Your task to perform on an android device: open app "Pandora - Music & Podcasts" (install if not already installed) Image 0: 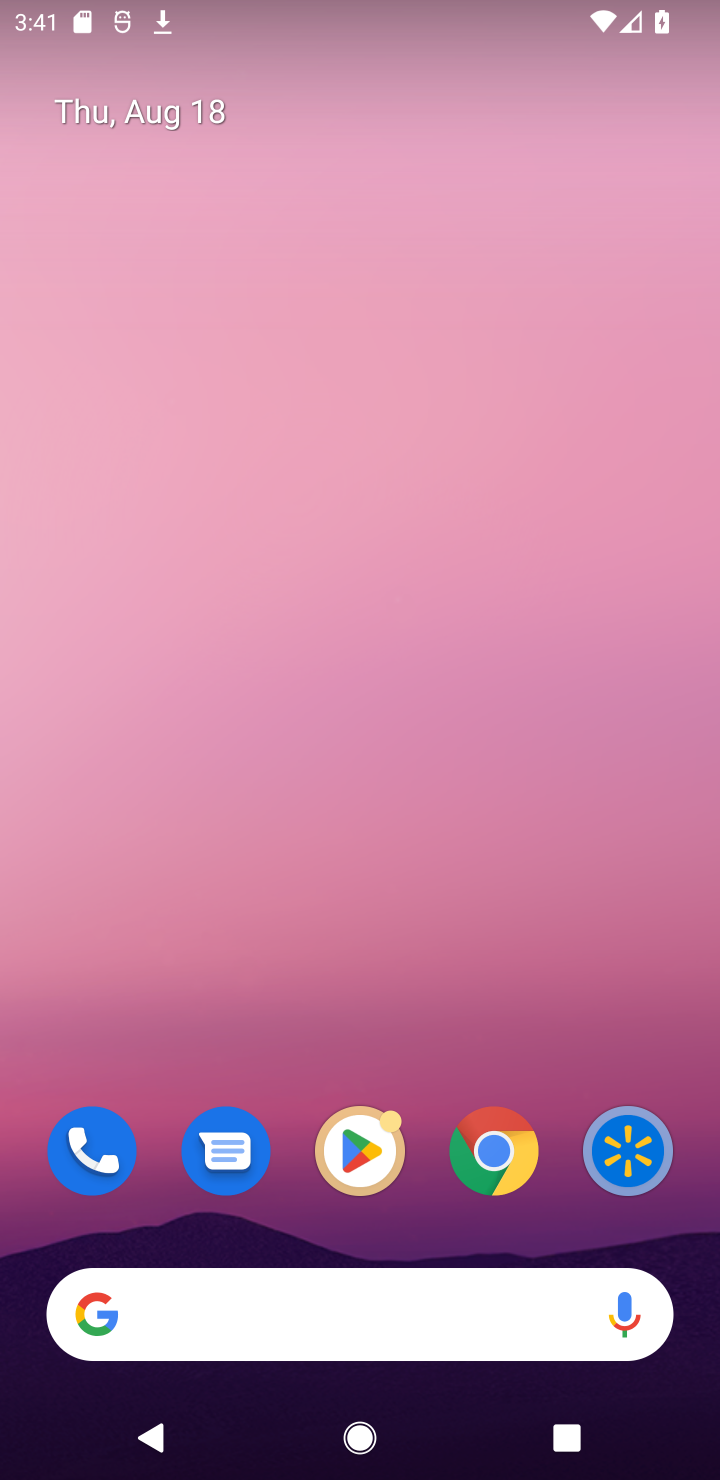
Step 0: click (354, 1123)
Your task to perform on an android device: open app "Pandora - Music & Podcasts" (install if not already installed) Image 1: 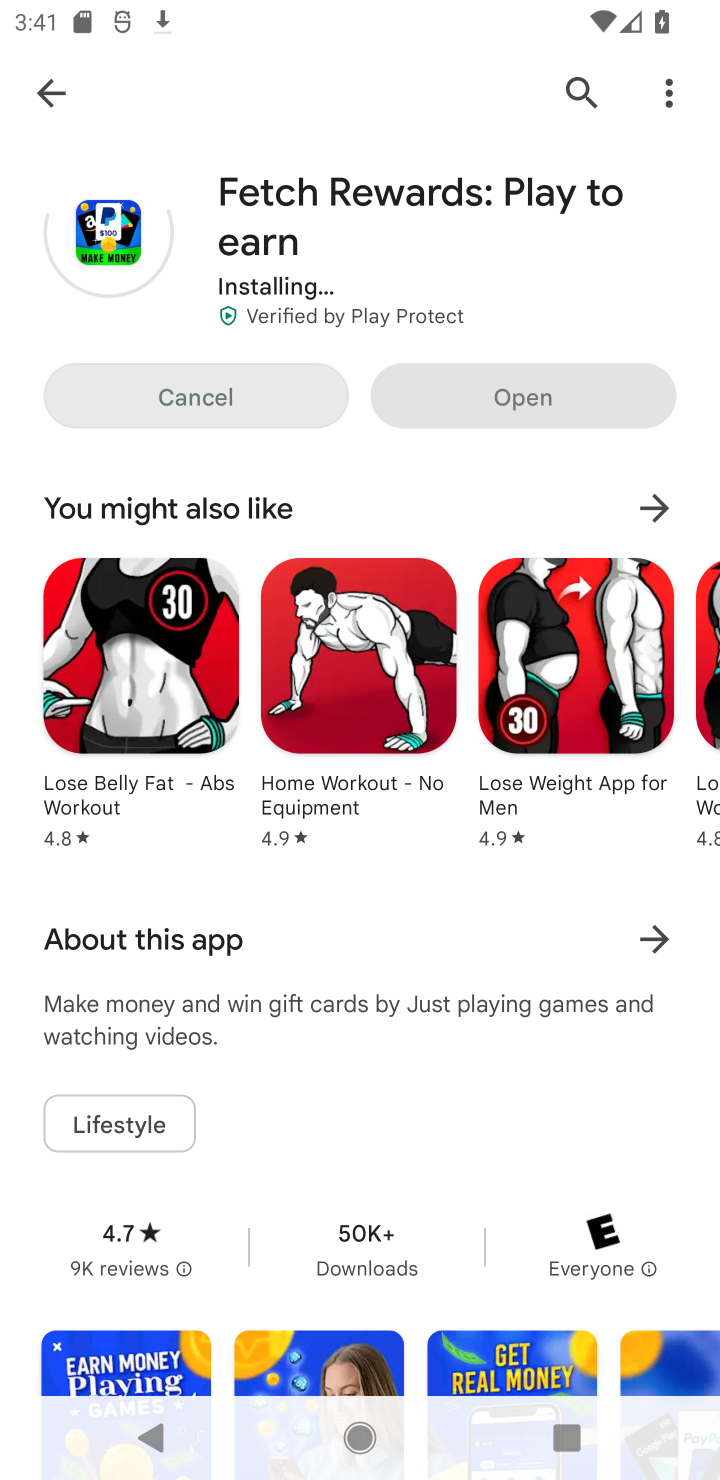
Step 1: click (591, 100)
Your task to perform on an android device: open app "Pandora - Music & Podcasts" (install if not already installed) Image 2: 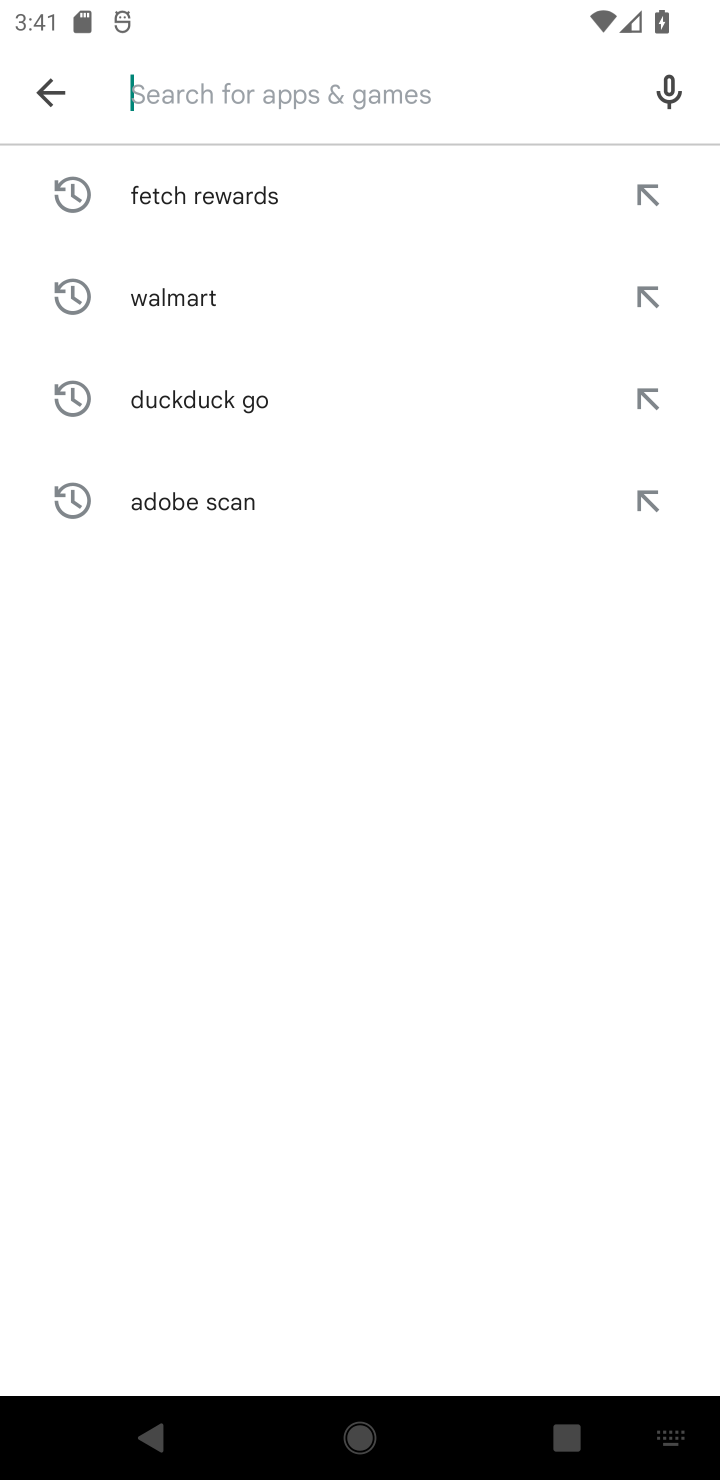
Step 2: type "pandora"
Your task to perform on an android device: open app "Pandora - Music & Podcasts" (install if not already installed) Image 3: 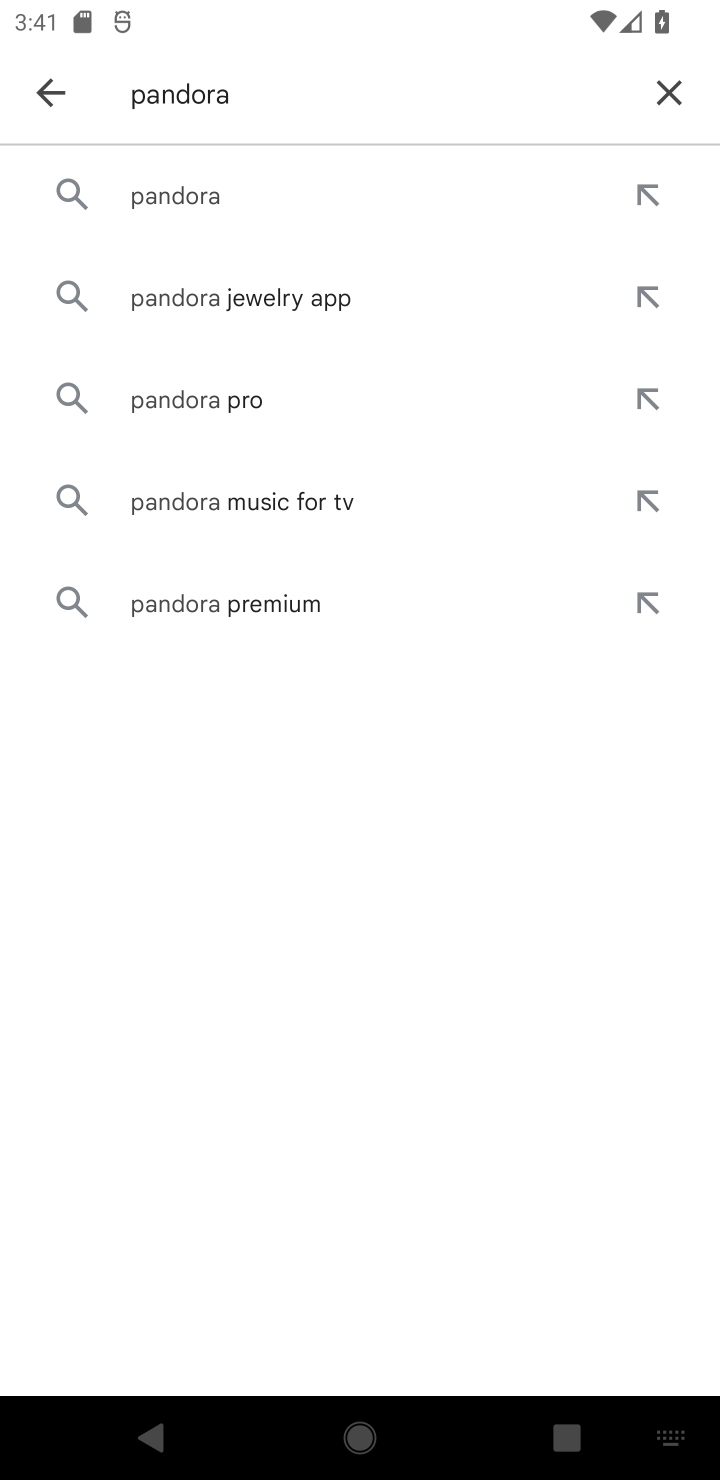
Step 3: click (446, 185)
Your task to perform on an android device: open app "Pandora - Music & Podcasts" (install if not already installed) Image 4: 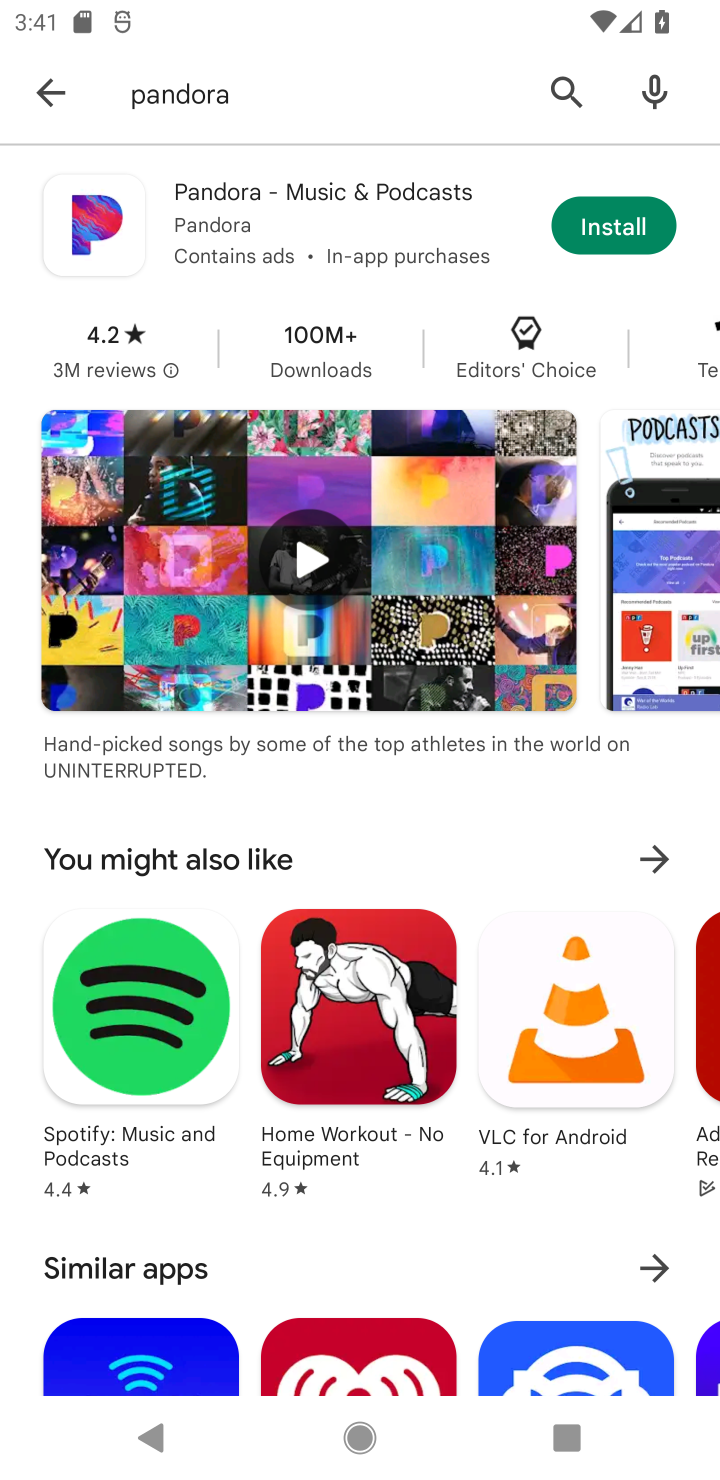
Step 4: click (639, 208)
Your task to perform on an android device: open app "Pandora - Music & Podcasts" (install if not already installed) Image 5: 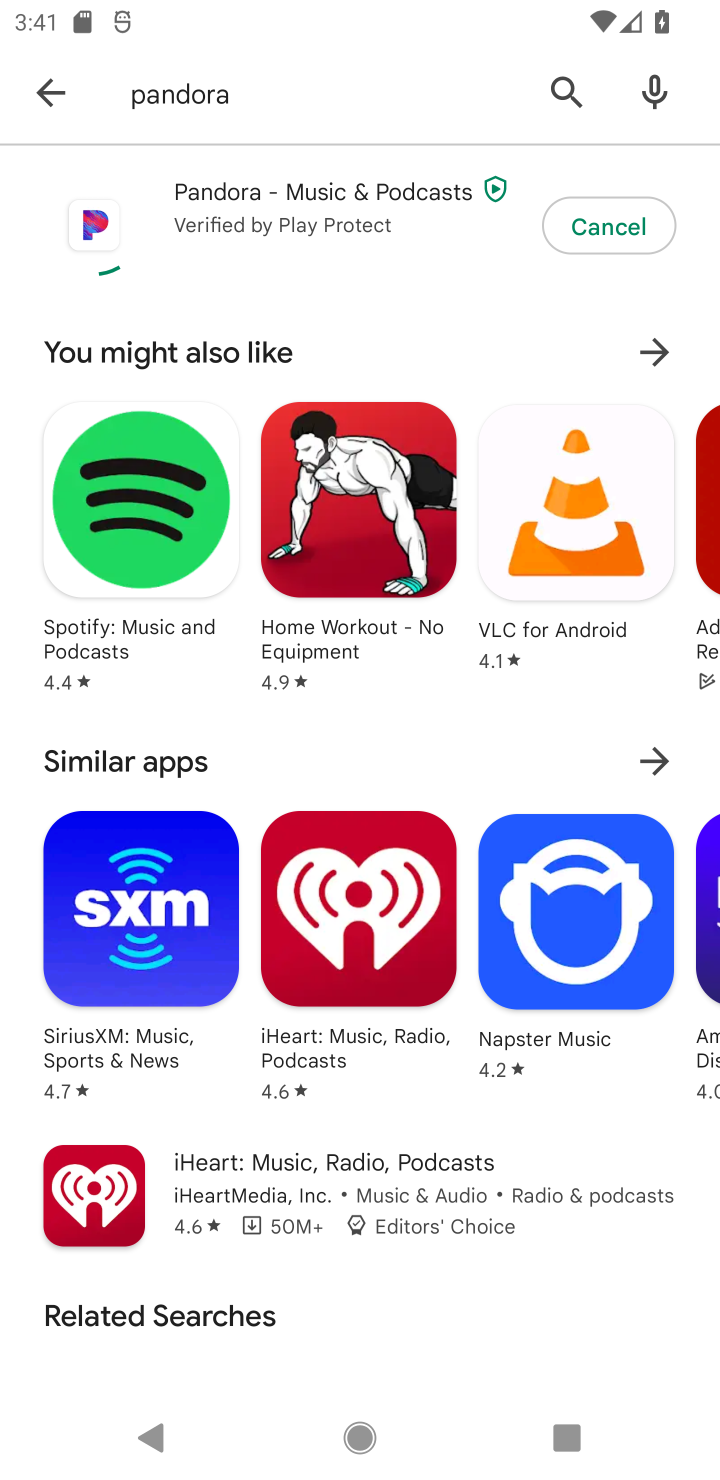
Step 5: task complete